Your task to perform on an android device: set an alarm Image 0: 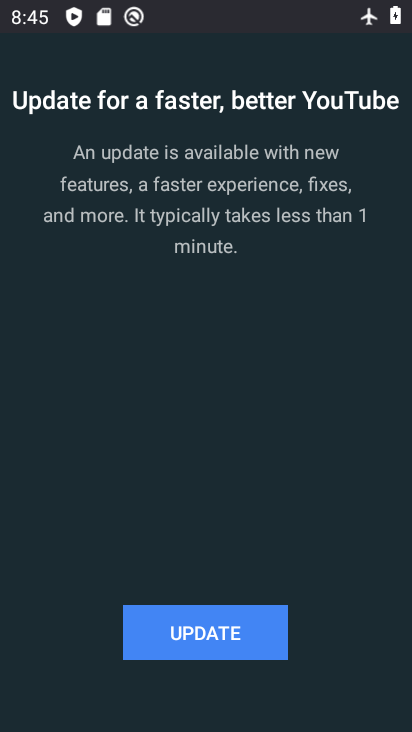
Step 0: press home button
Your task to perform on an android device: set an alarm Image 1: 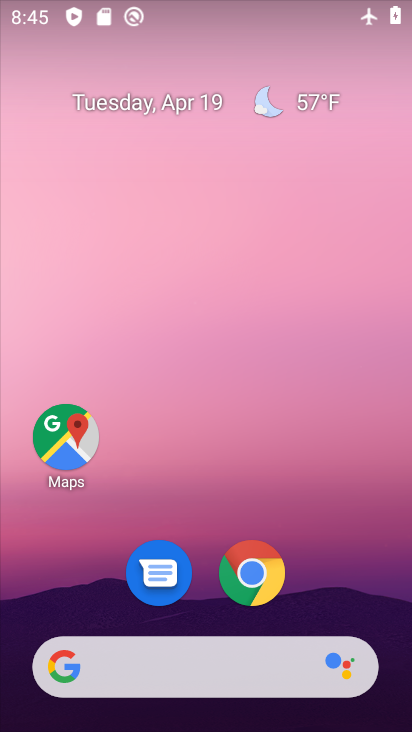
Step 1: drag from (344, 598) to (342, 125)
Your task to perform on an android device: set an alarm Image 2: 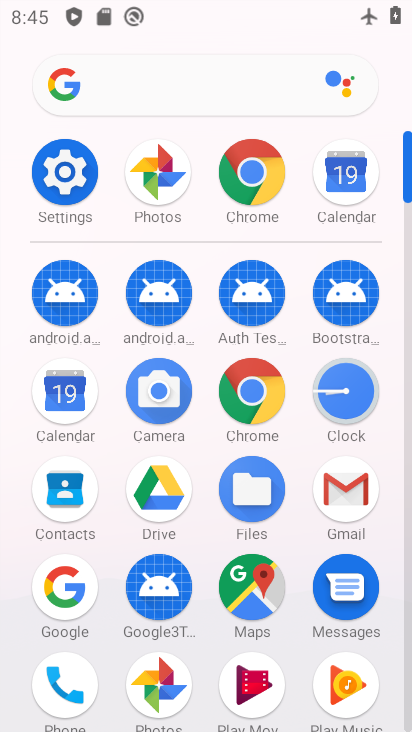
Step 2: click (340, 389)
Your task to perform on an android device: set an alarm Image 3: 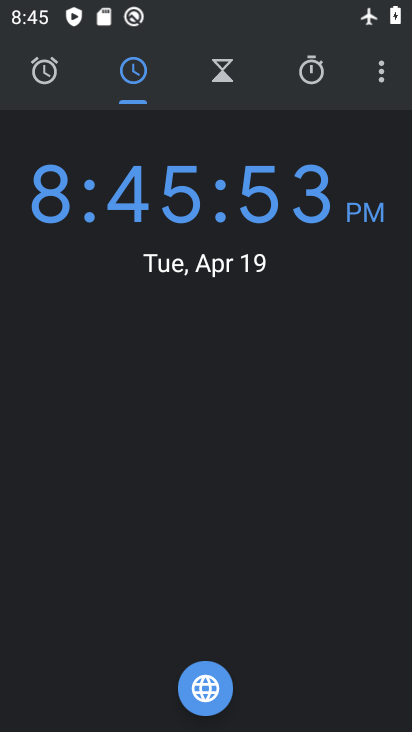
Step 3: click (37, 65)
Your task to perform on an android device: set an alarm Image 4: 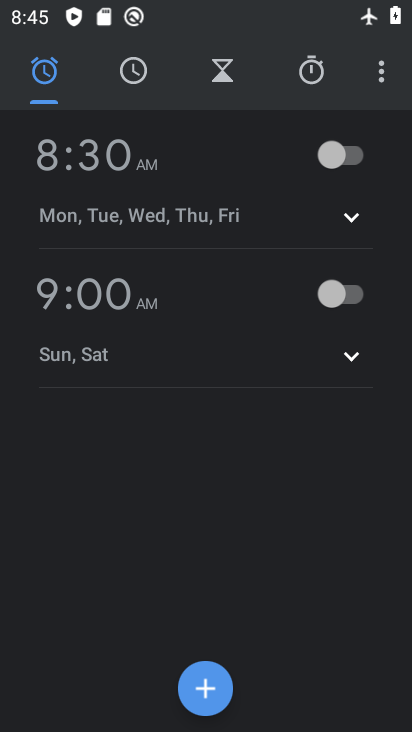
Step 4: click (355, 165)
Your task to perform on an android device: set an alarm Image 5: 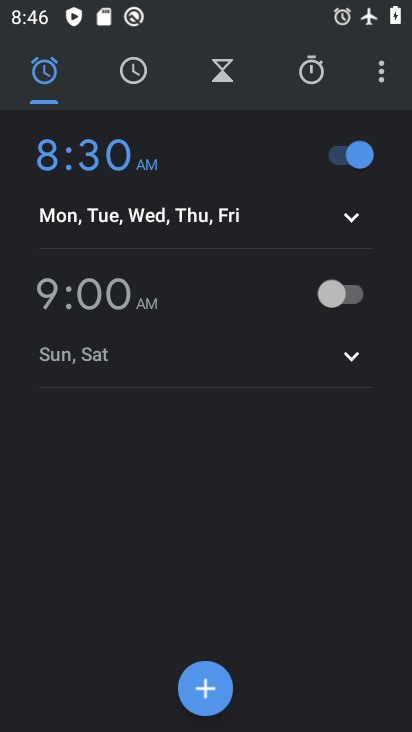
Step 5: task complete